Your task to perform on an android device: turn off airplane mode Image 0: 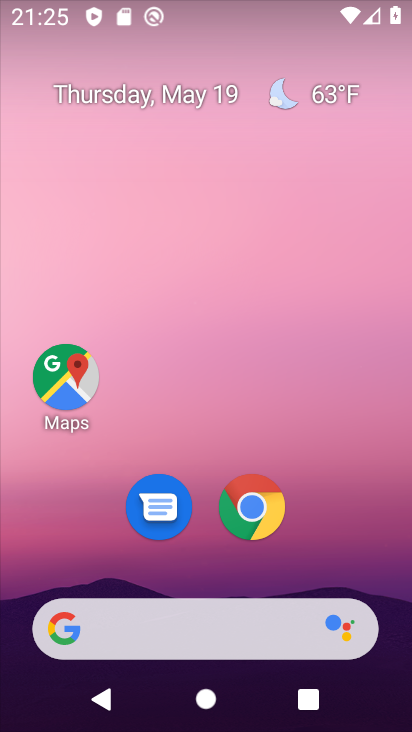
Step 0: drag from (397, 571) to (333, 193)
Your task to perform on an android device: turn off airplane mode Image 1: 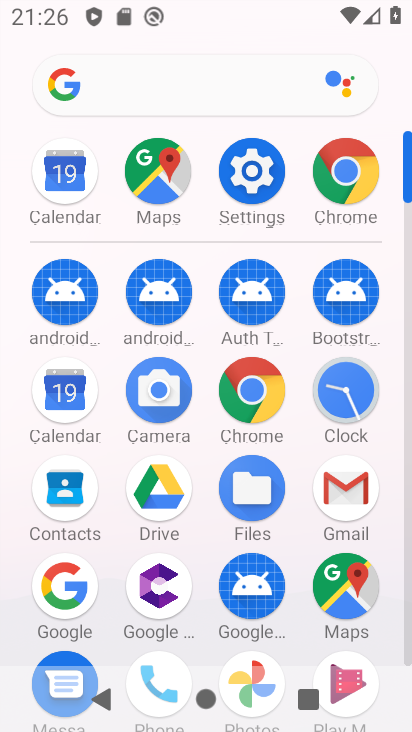
Step 1: click (265, 171)
Your task to perform on an android device: turn off airplane mode Image 2: 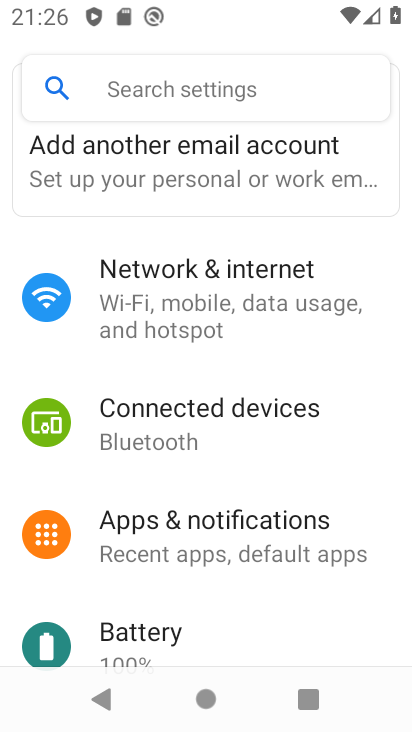
Step 2: click (268, 289)
Your task to perform on an android device: turn off airplane mode Image 3: 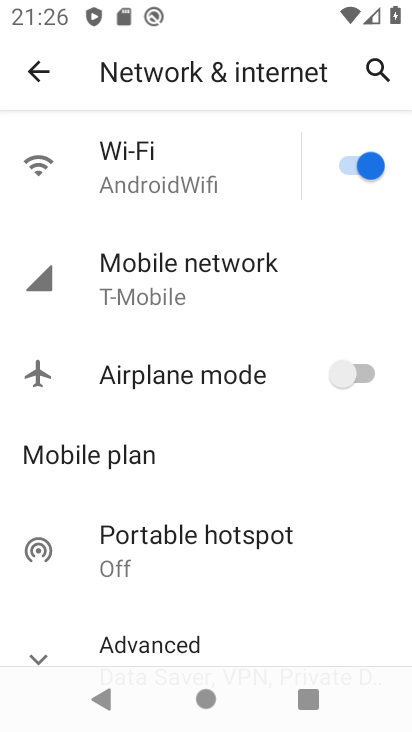
Step 3: task complete